Your task to perform on an android device: change the upload size in google photos Image 0: 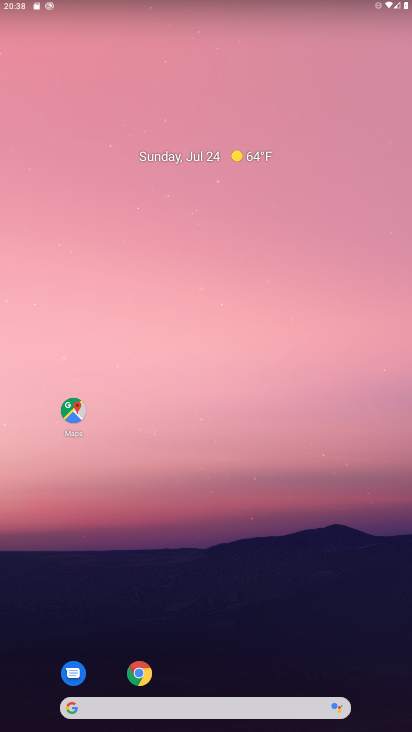
Step 0: drag from (262, 684) to (238, 186)
Your task to perform on an android device: change the upload size in google photos Image 1: 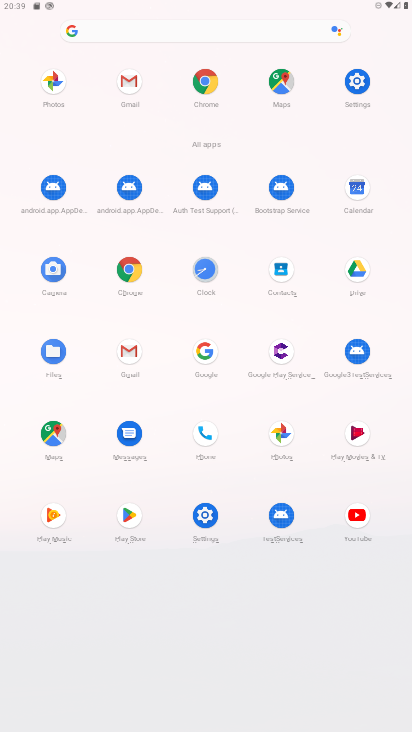
Step 1: click (285, 437)
Your task to perform on an android device: change the upload size in google photos Image 2: 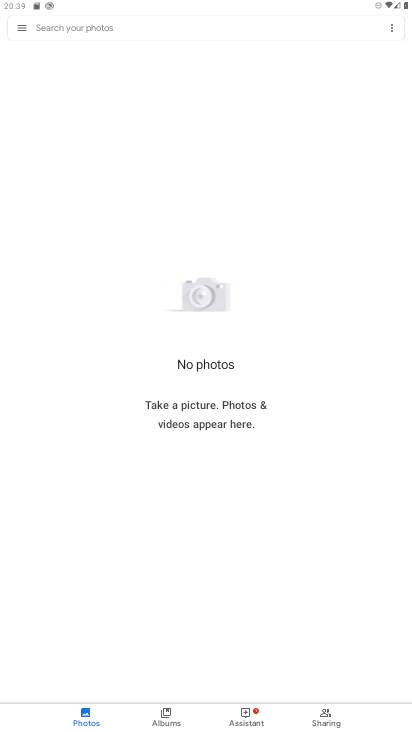
Step 2: click (23, 28)
Your task to perform on an android device: change the upload size in google photos Image 3: 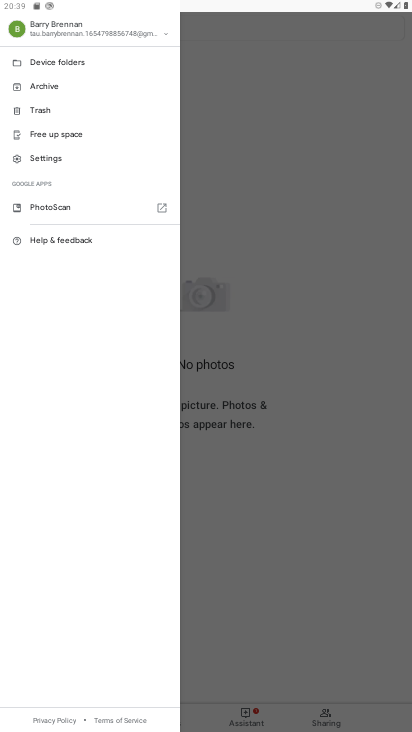
Step 3: click (62, 30)
Your task to perform on an android device: change the upload size in google photos Image 4: 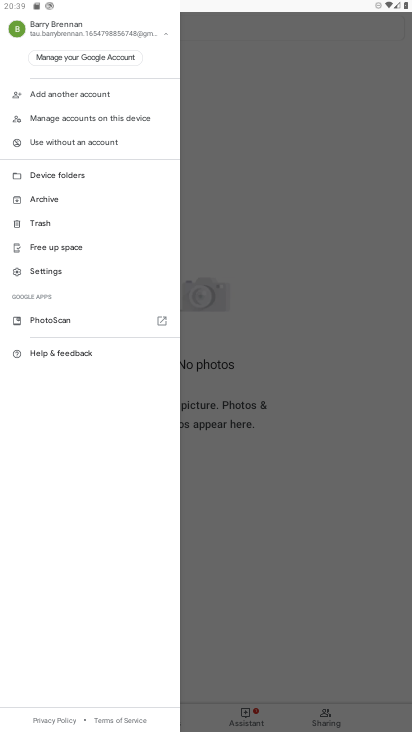
Step 4: click (48, 271)
Your task to perform on an android device: change the upload size in google photos Image 5: 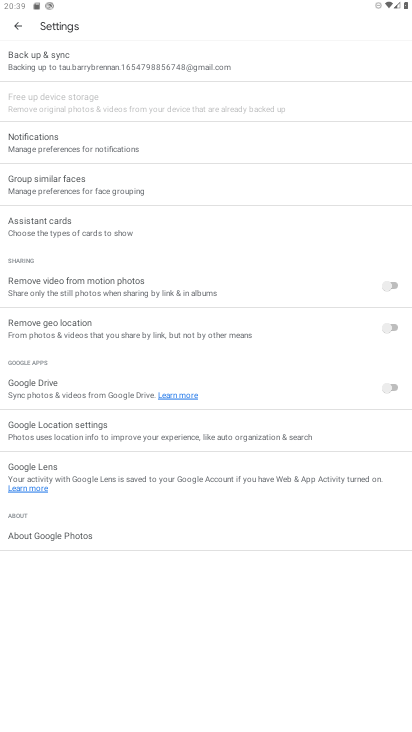
Step 5: click (83, 50)
Your task to perform on an android device: change the upload size in google photos Image 6: 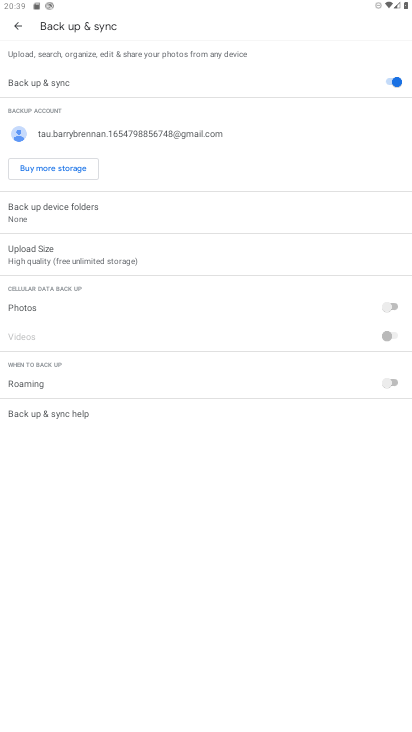
Step 6: click (74, 249)
Your task to perform on an android device: change the upload size in google photos Image 7: 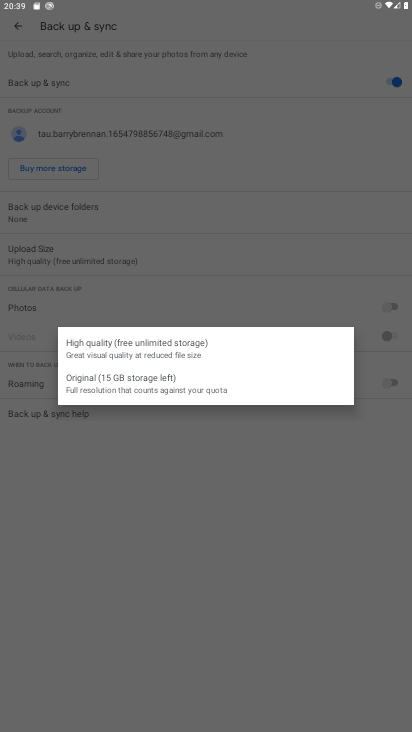
Step 7: click (118, 390)
Your task to perform on an android device: change the upload size in google photos Image 8: 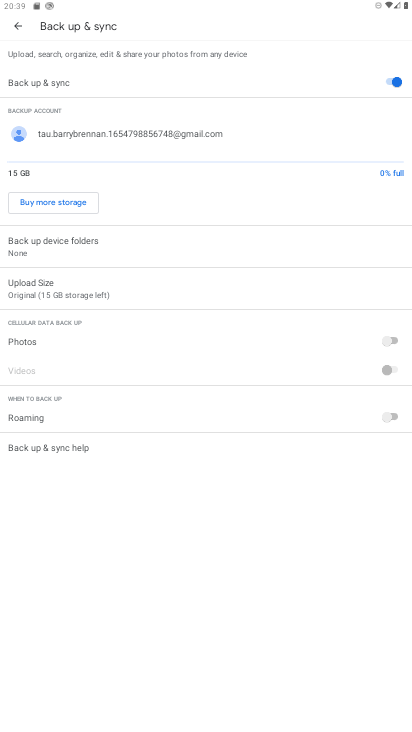
Step 8: task complete